Your task to perform on an android device: Toggle the flashlight Image 0: 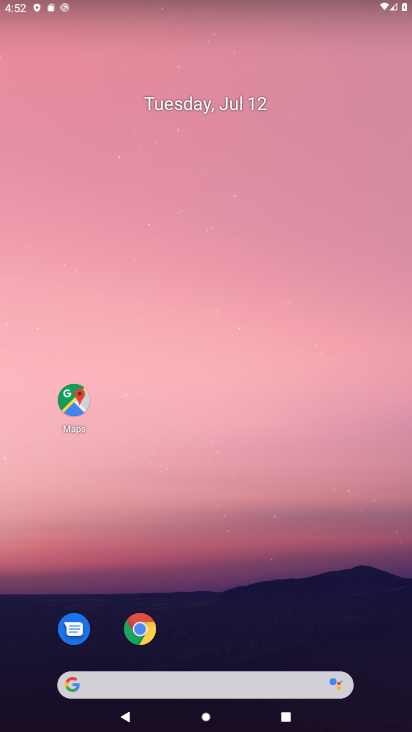
Step 0: drag from (228, 610) to (246, 452)
Your task to perform on an android device: Toggle the flashlight Image 1: 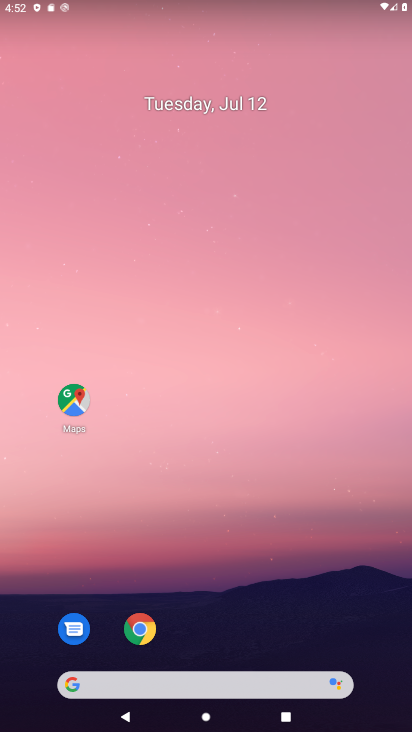
Step 1: task complete